Your task to perform on an android device: turn on data saver in the chrome app Image 0: 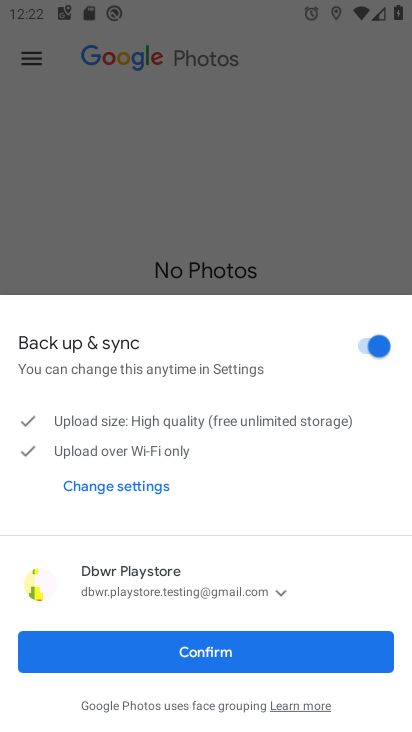
Step 0: press home button
Your task to perform on an android device: turn on data saver in the chrome app Image 1: 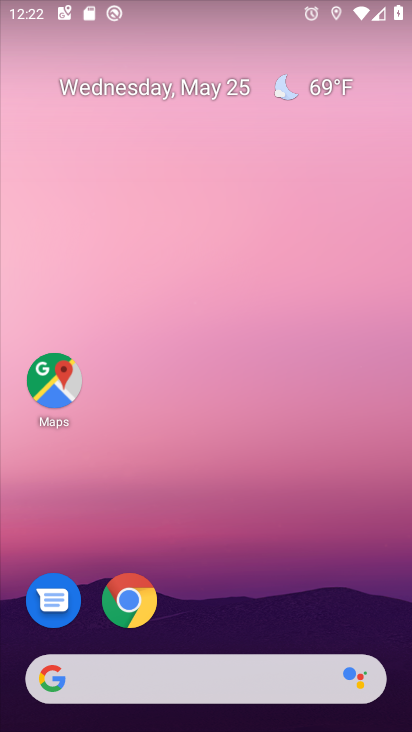
Step 1: drag from (367, 618) to (374, 202)
Your task to perform on an android device: turn on data saver in the chrome app Image 2: 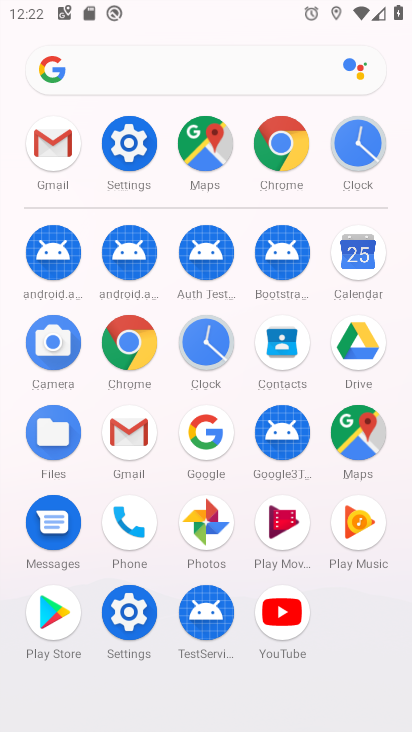
Step 2: click (129, 339)
Your task to perform on an android device: turn on data saver in the chrome app Image 3: 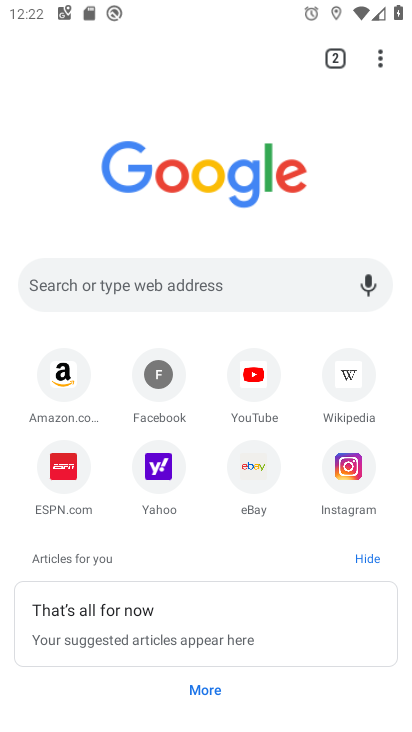
Step 3: click (381, 67)
Your task to perform on an android device: turn on data saver in the chrome app Image 4: 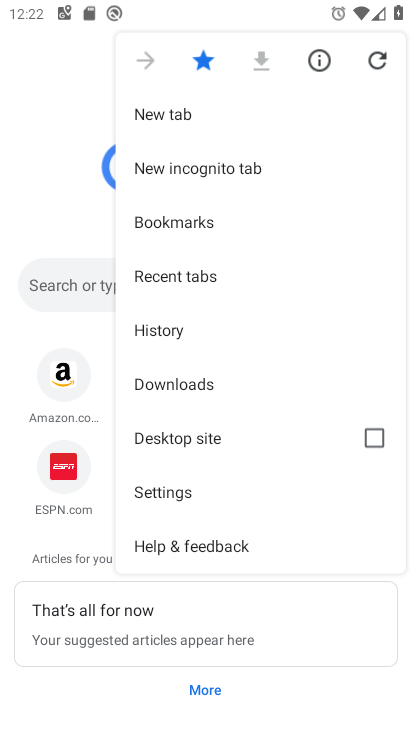
Step 4: click (185, 496)
Your task to perform on an android device: turn on data saver in the chrome app Image 5: 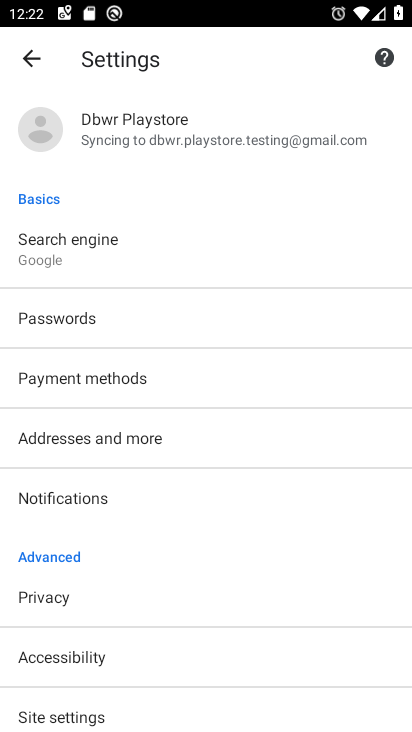
Step 5: drag from (263, 566) to (259, 502)
Your task to perform on an android device: turn on data saver in the chrome app Image 6: 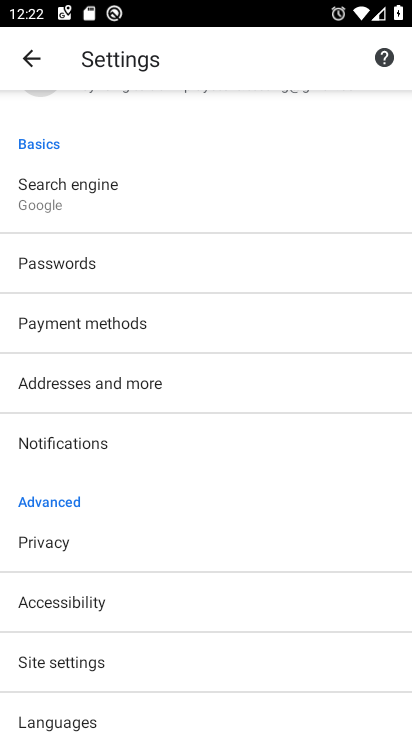
Step 6: drag from (290, 640) to (297, 567)
Your task to perform on an android device: turn on data saver in the chrome app Image 7: 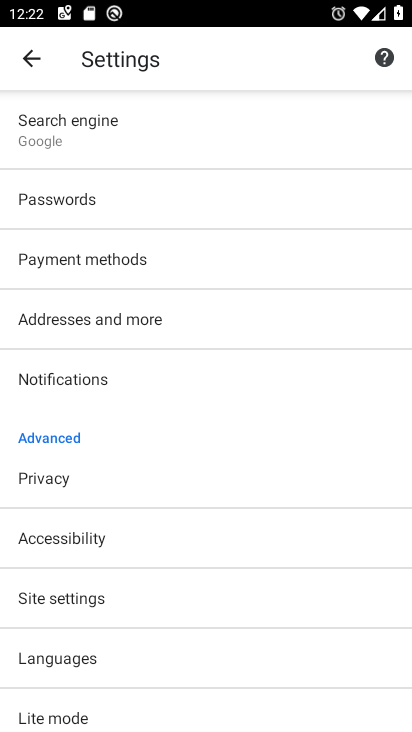
Step 7: drag from (295, 634) to (299, 554)
Your task to perform on an android device: turn on data saver in the chrome app Image 8: 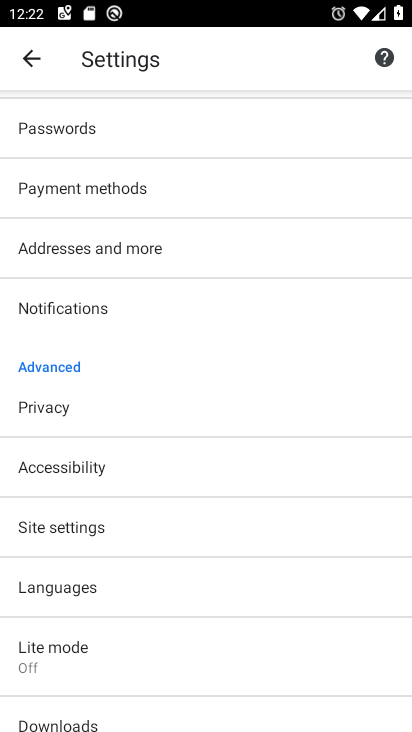
Step 8: drag from (310, 641) to (304, 540)
Your task to perform on an android device: turn on data saver in the chrome app Image 9: 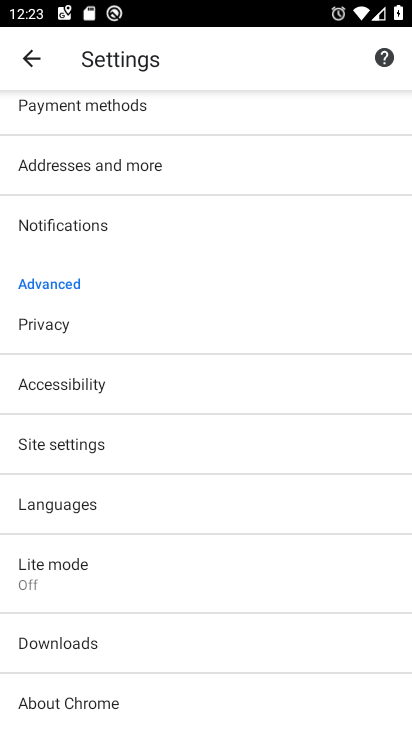
Step 9: drag from (311, 582) to (334, 467)
Your task to perform on an android device: turn on data saver in the chrome app Image 10: 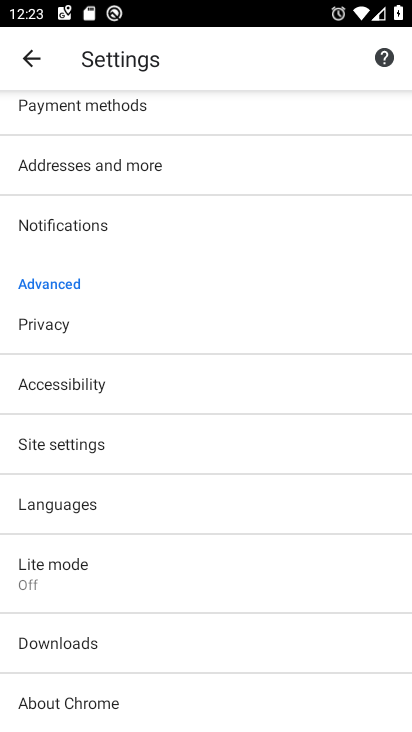
Step 10: drag from (318, 613) to (317, 517)
Your task to perform on an android device: turn on data saver in the chrome app Image 11: 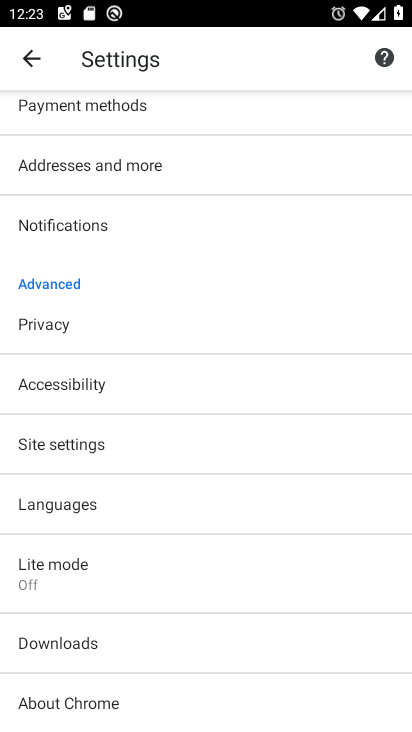
Step 11: click (225, 577)
Your task to perform on an android device: turn on data saver in the chrome app Image 12: 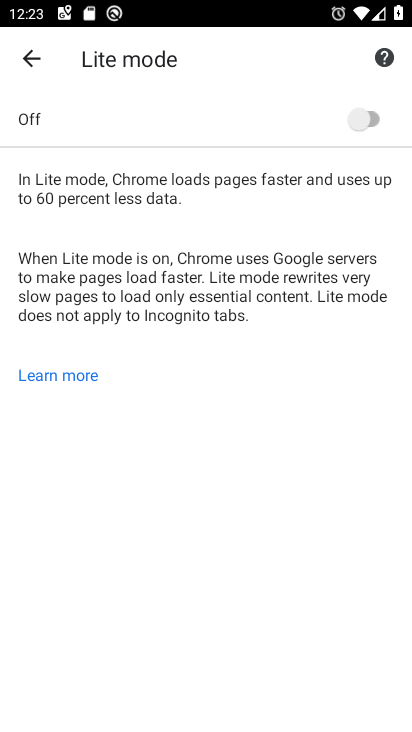
Step 12: click (356, 131)
Your task to perform on an android device: turn on data saver in the chrome app Image 13: 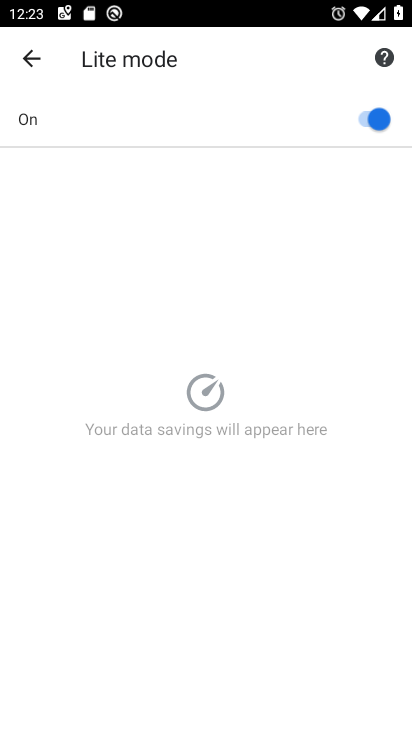
Step 13: task complete